Your task to perform on an android device: Set an alarm for 6am Image 0: 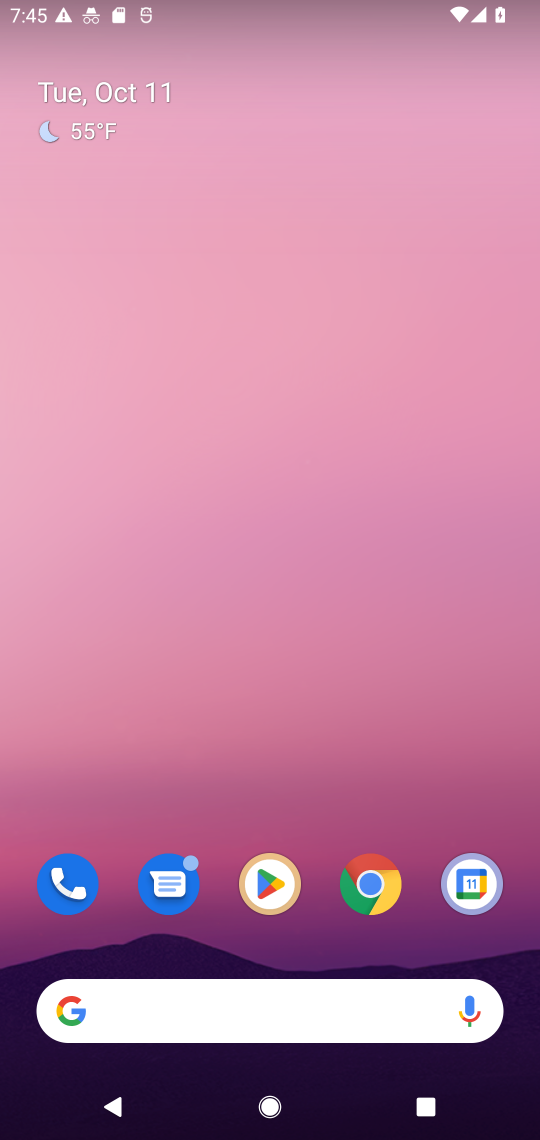
Step 0: drag from (243, 977) to (202, 74)
Your task to perform on an android device: Set an alarm for 6am Image 1: 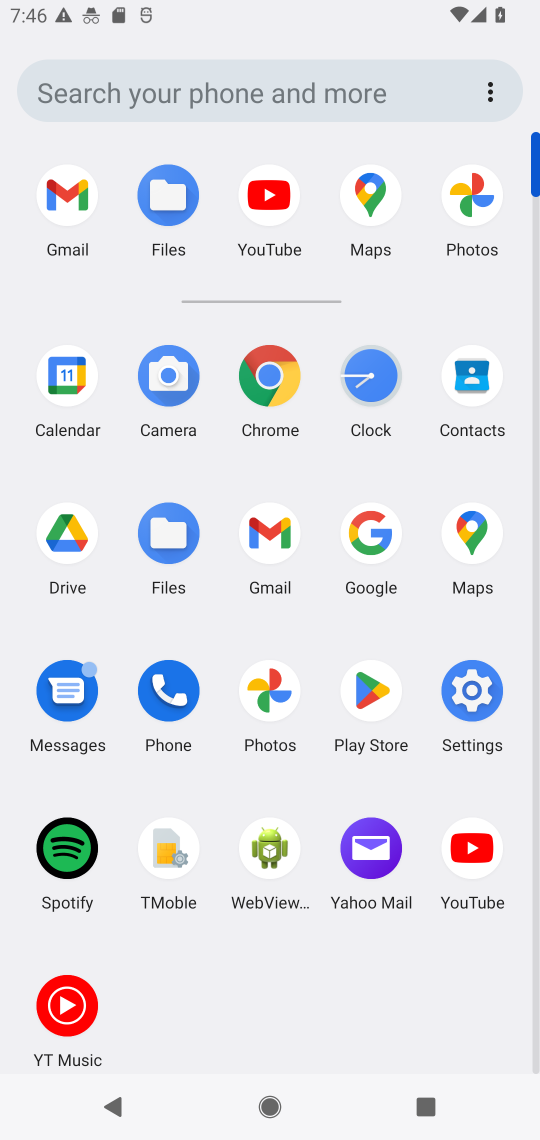
Step 1: click (364, 373)
Your task to perform on an android device: Set an alarm for 6am Image 2: 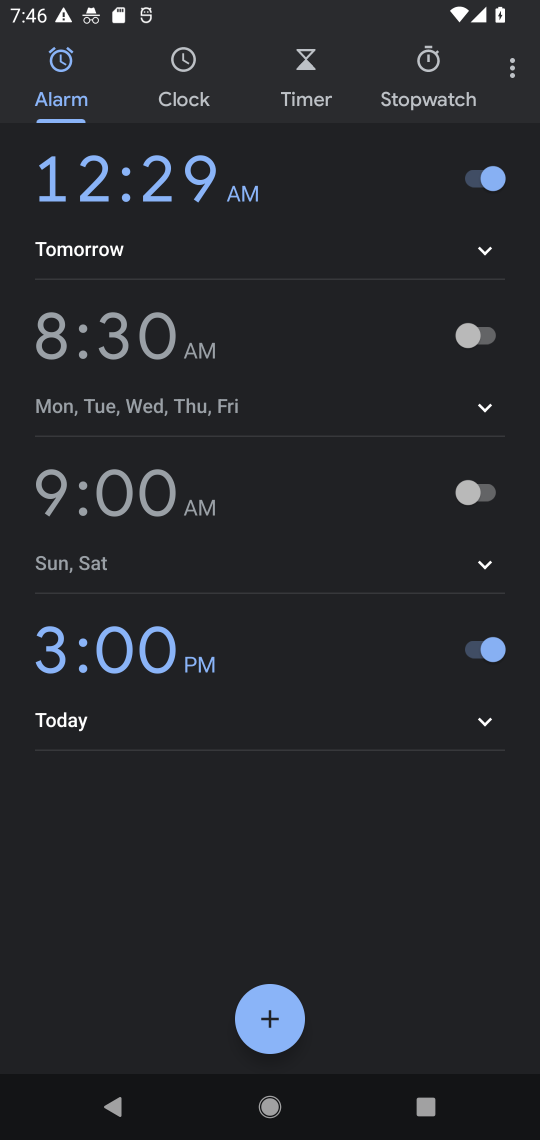
Step 2: click (267, 1019)
Your task to perform on an android device: Set an alarm for 6am Image 3: 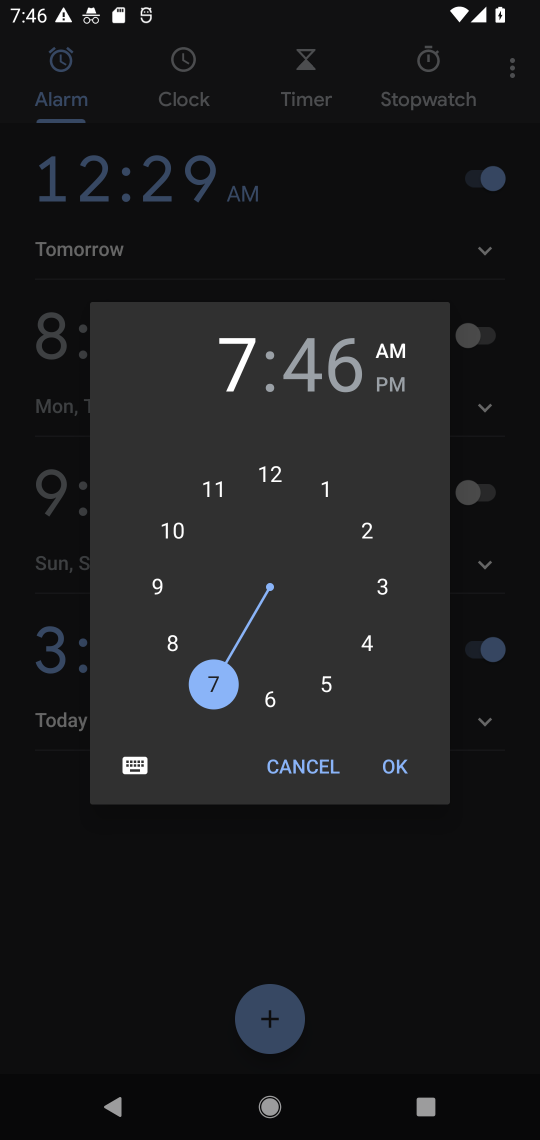
Step 3: drag from (222, 671) to (281, 705)
Your task to perform on an android device: Set an alarm for 6am Image 4: 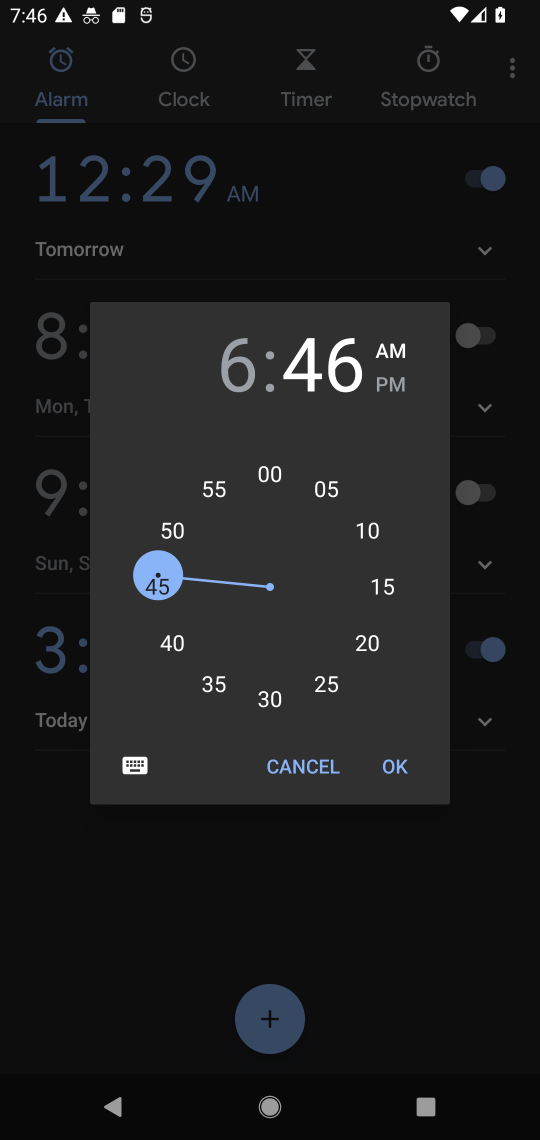
Step 4: drag from (160, 578) to (265, 471)
Your task to perform on an android device: Set an alarm for 6am Image 5: 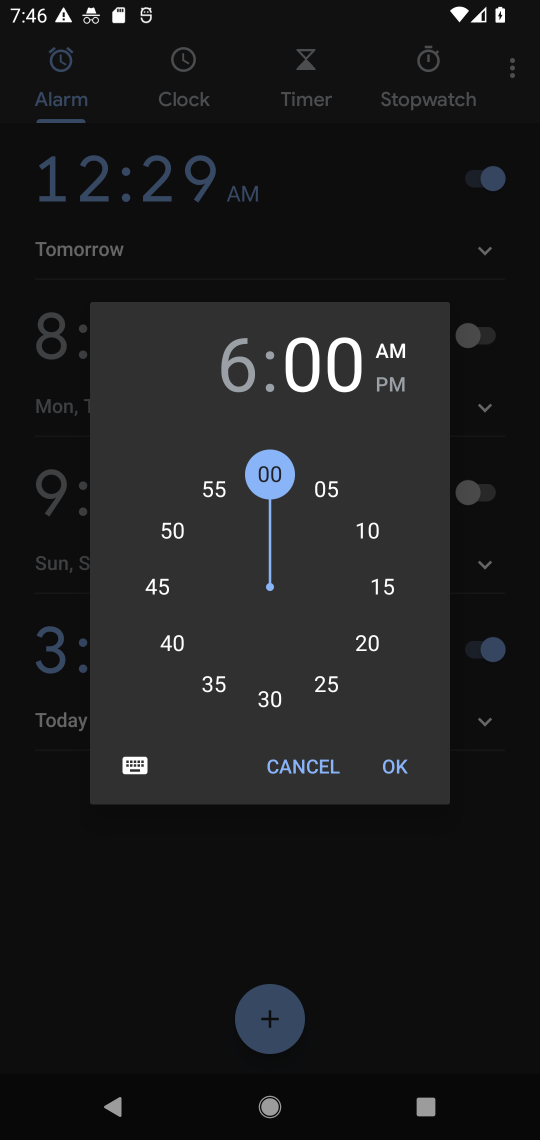
Step 5: click (391, 756)
Your task to perform on an android device: Set an alarm for 6am Image 6: 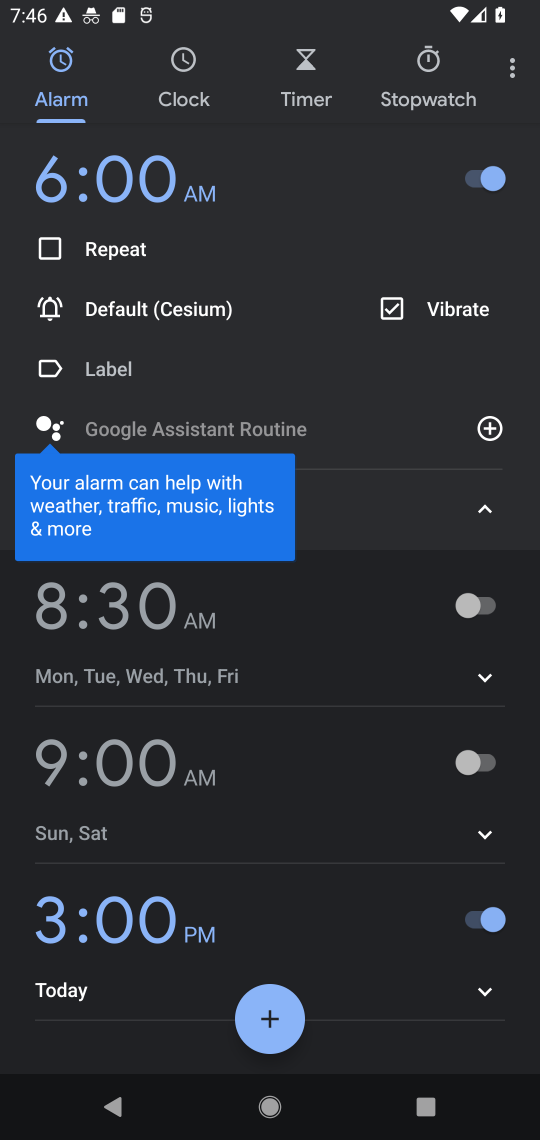
Step 6: task complete